Your task to perform on an android device: clear all cookies in the chrome app Image 0: 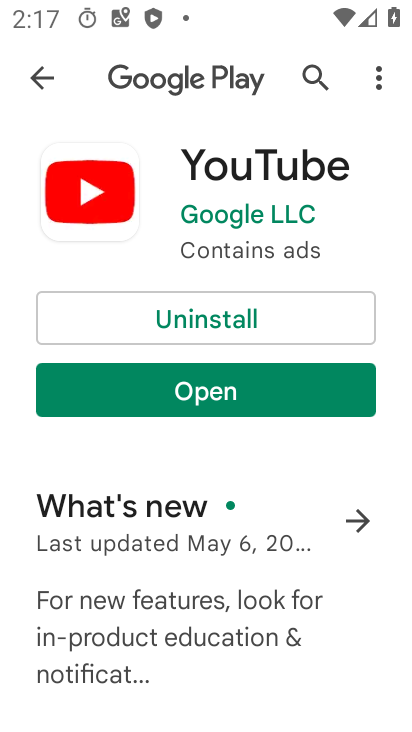
Step 0: press home button
Your task to perform on an android device: clear all cookies in the chrome app Image 1: 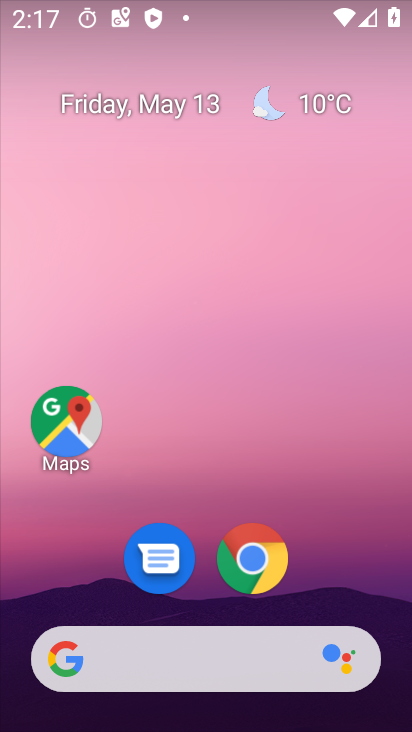
Step 1: click (272, 552)
Your task to perform on an android device: clear all cookies in the chrome app Image 2: 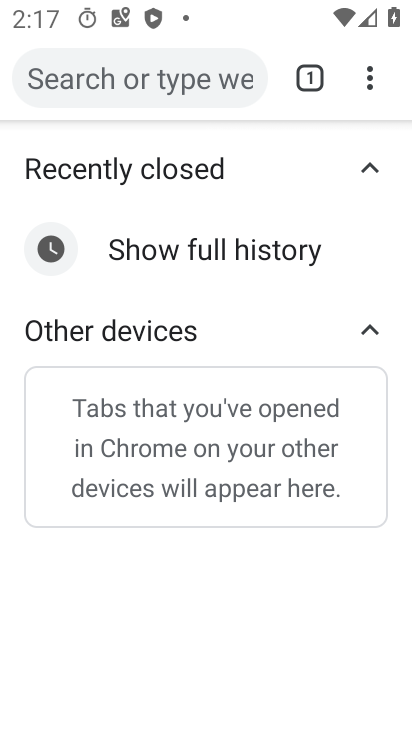
Step 2: click (363, 80)
Your task to perform on an android device: clear all cookies in the chrome app Image 3: 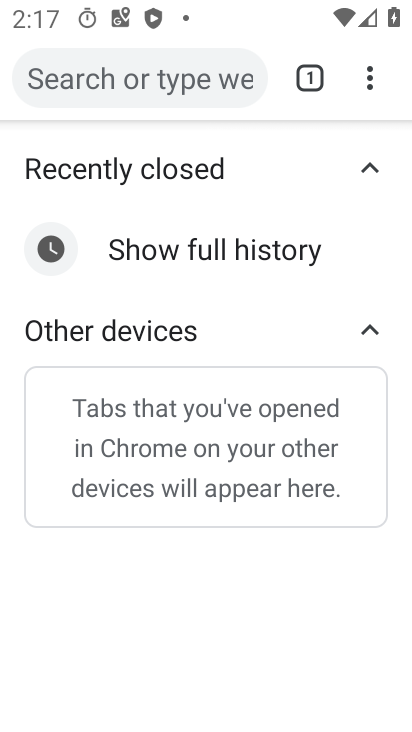
Step 3: click (364, 82)
Your task to perform on an android device: clear all cookies in the chrome app Image 4: 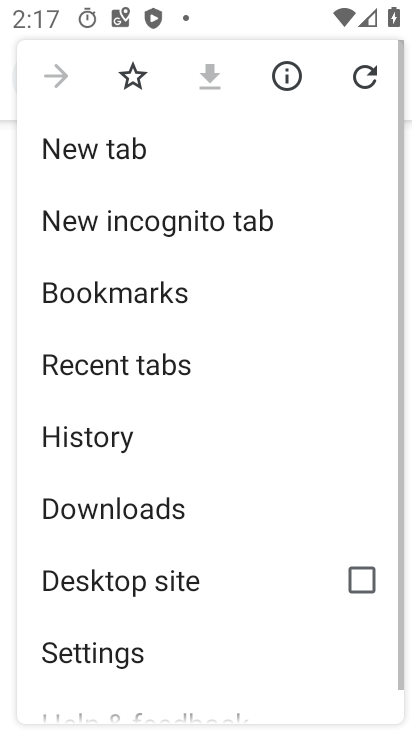
Step 4: drag from (117, 651) to (151, 429)
Your task to perform on an android device: clear all cookies in the chrome app Image 5: 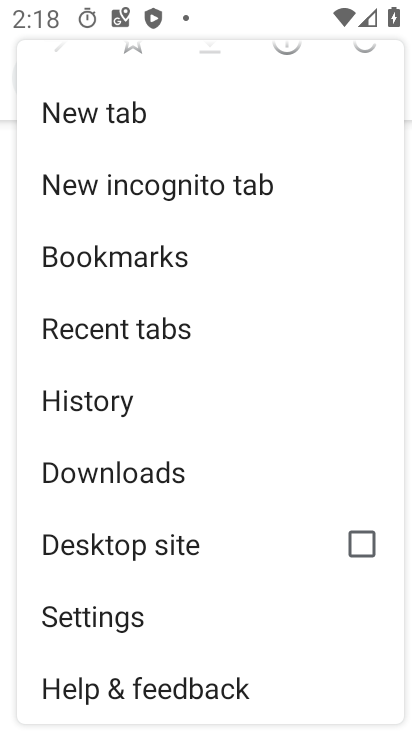
Step 5: click (137, 614)
Your task to perform on an android device: clear all cookies in the chrome app Image 6: 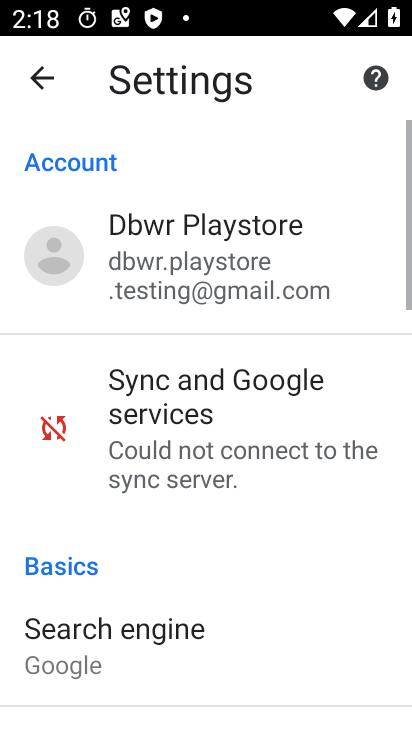
Step 6: drag from (185, 644) to (175, 438)
Your task to perform on an android device: clear all cookies in the chrome app Image 7: 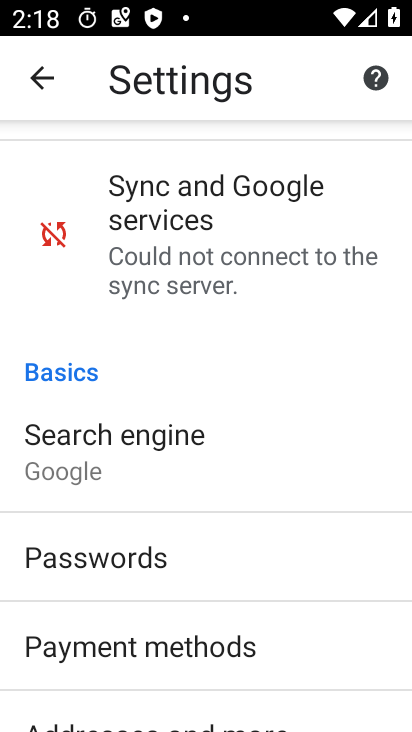
Step 7: drag from (185, 595) to (194, 408)
Your task to perform on an android device: clear all cookies in the chrome app Image 8: 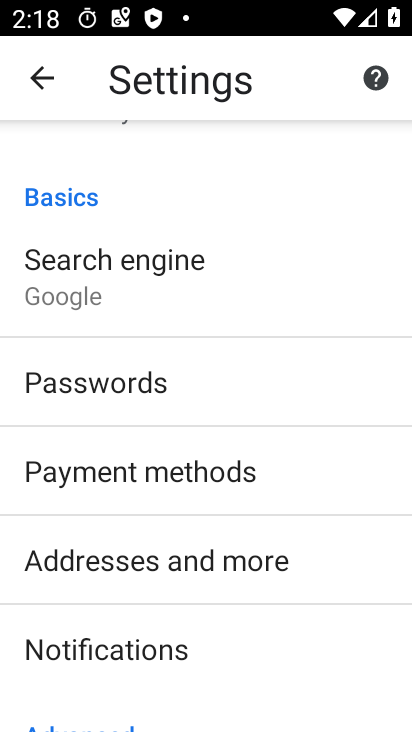
Step 8: drag from (208, 562) to (208, 447)
Your task to perform on an android device: clear all cookies in the chrome app Image 9: 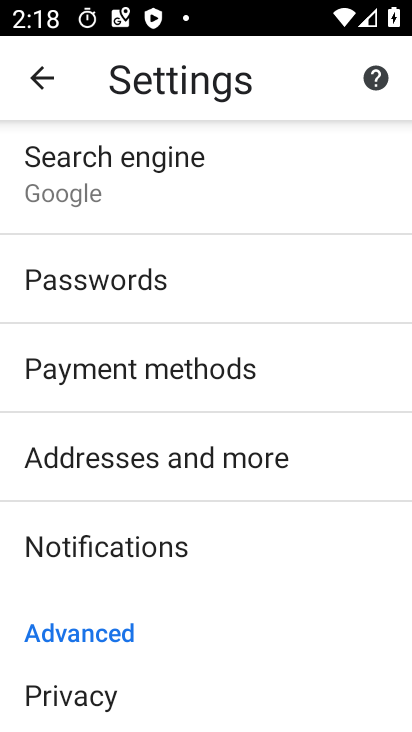
Step 9: drag from (211, 594) to (222, 458)
Your task to perform on an android device: clear all cookies in the chrome app Image 10: 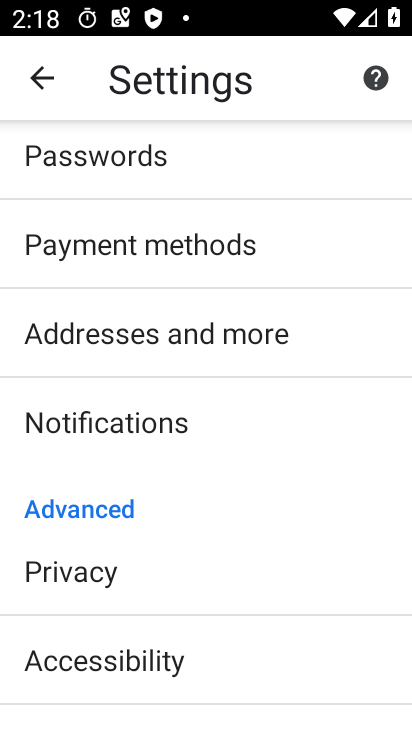
Step 10: click (49, 81)
Your task to perform on an android device: clear all cookies in the chrome app Image 11: 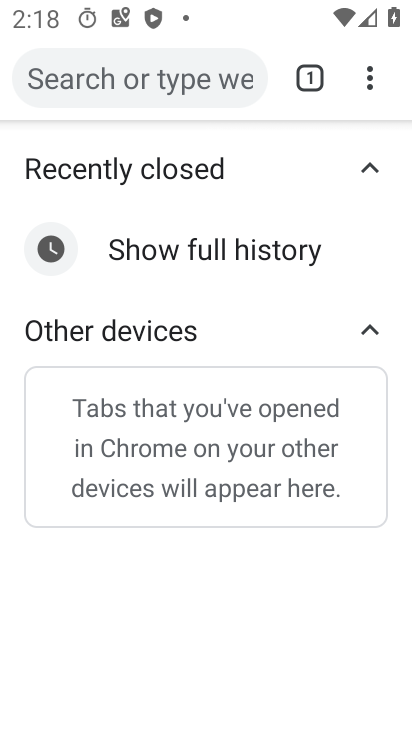
Step 11: click (366, 77)
Your task to perform on an android device: clear all cookies in the chrome app Image 12: 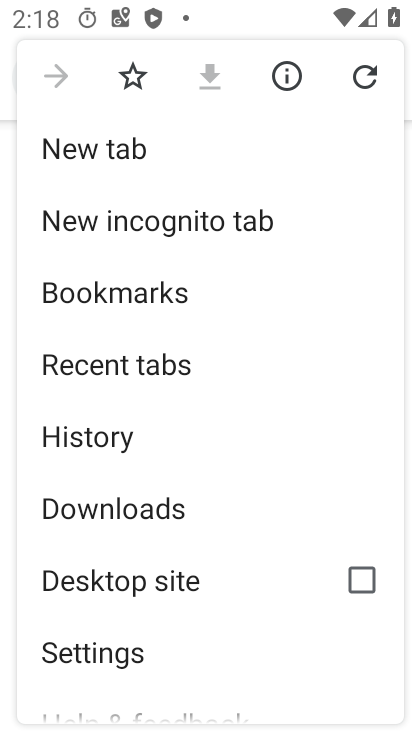
Step 12: click (136, 425)
Your task to perform on an android device: clear all cookies in the chrome app Image 13: 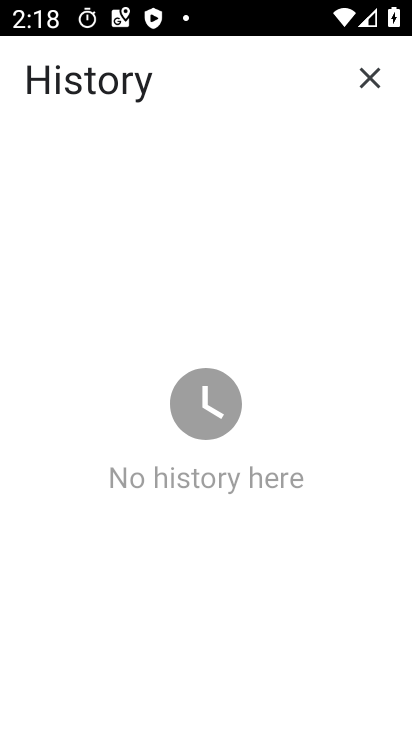
Step 13: task complete